Your task to perform on an android device: empty trash in the gmail app Image 0: 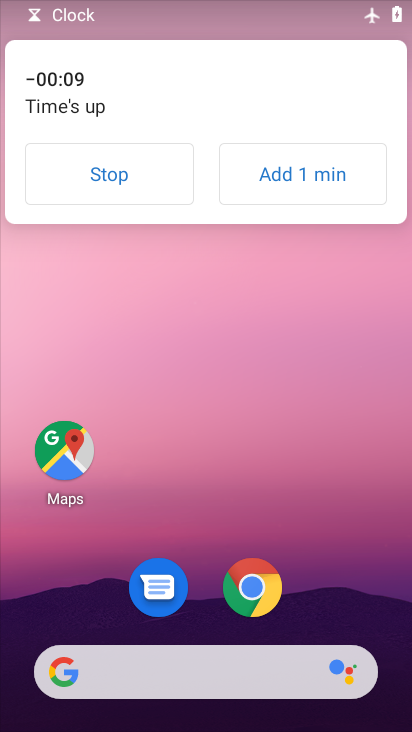
Step 0: drag from (354, 592) to (358, 93)
Your task to perform on an android device: empty trash in the gmail app Image 1: 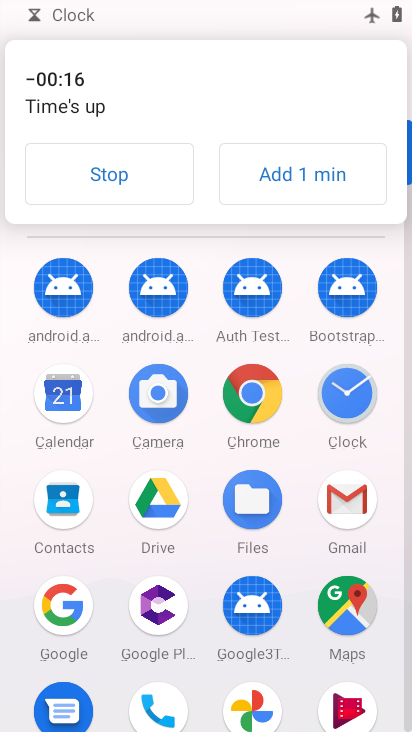
Step 1: click (349, 501)
Your task to perform on an android device: empty trash in the gmail app Image 2: 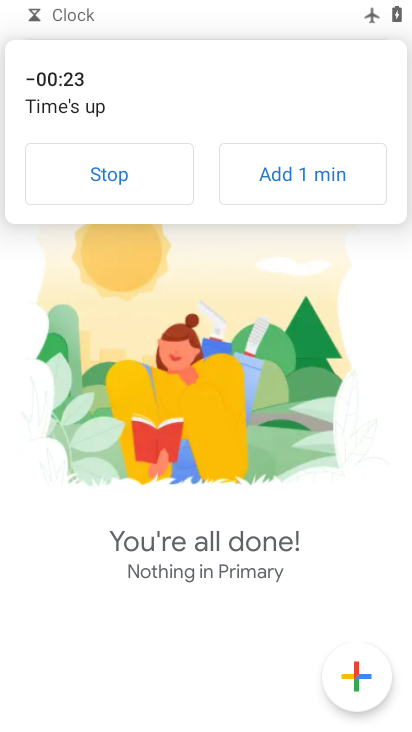
Step 2: click (133, 174)
Your task to perform on an android device: empty trash in the gmail app Image 3: 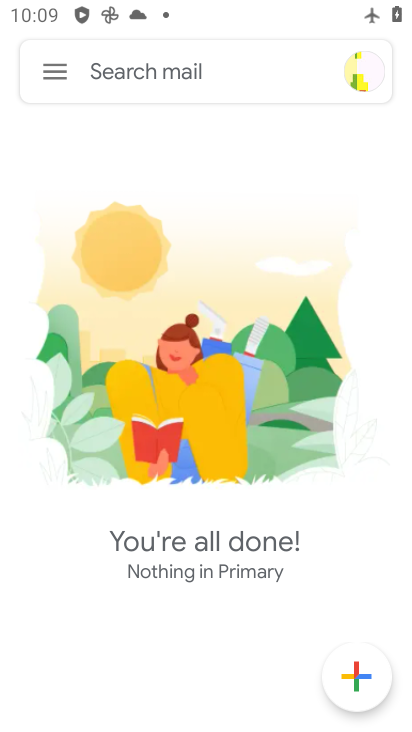
Step 3: click (57, 65)
Your task to perform on an android device: empty trash in the gmail app Image 4: 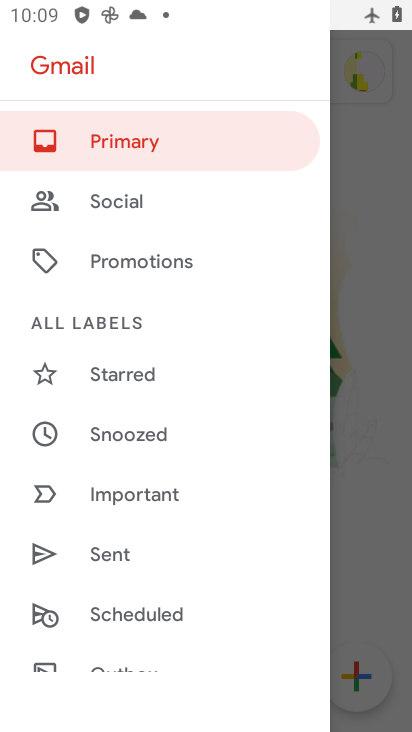
Step 4: drag from (255, 486) to (260, 335)
Your task to perform on an android device: empty trash in the gmail app Image 5: 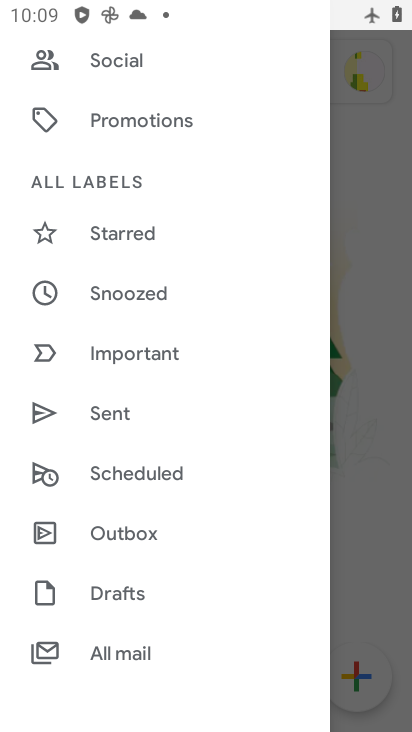
Step 5: drag from (234, 580) to (266, 385)
Your task to perform on an android device: empty trash in the gmail app Image 6: 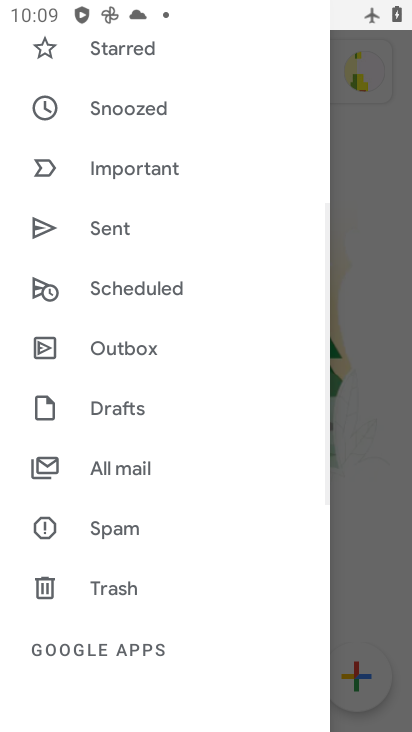
Step 6: drag from (251, 554) to (258, 402)
Your task to perform on an android device: empty trash in the gmail app Image 7: 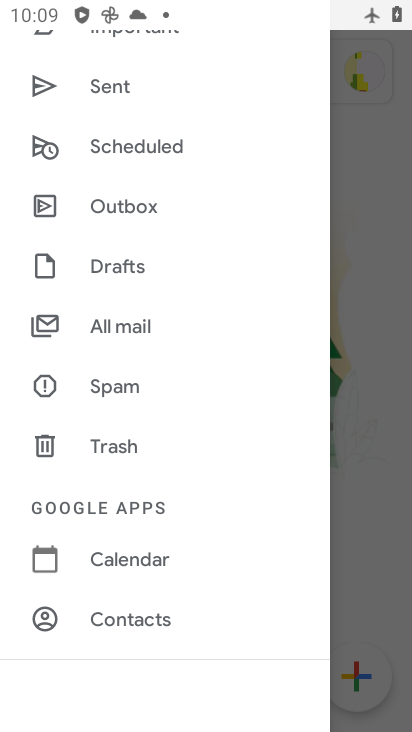
Step 7: drag from (255, 533) to (262, 438)
Your task to perform on an android device: empty trash in the gmail app Image 8: 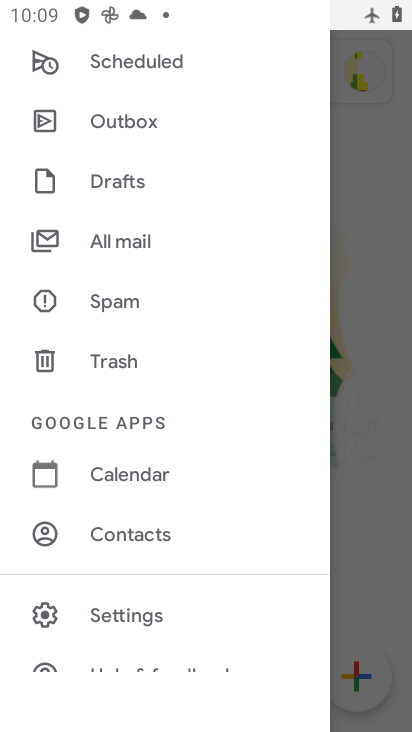
Step 8: drag from (262, 582) to (270, 390)
Your task to perform on an android device: empty trash in the gmail app Image 9: 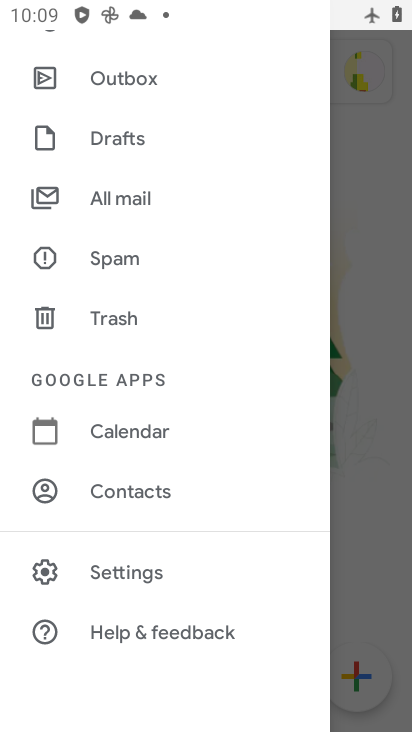
Step 9: click (121, 312)
Your task to perform on an android device: empty trash in the gmail app Image 10: 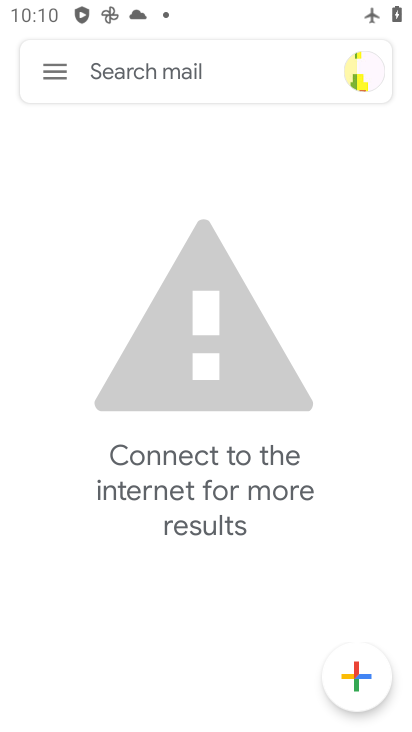
Step 10: task complete